Your task to perform on an android device: toggle notifications settings in the gmail app Image 0: 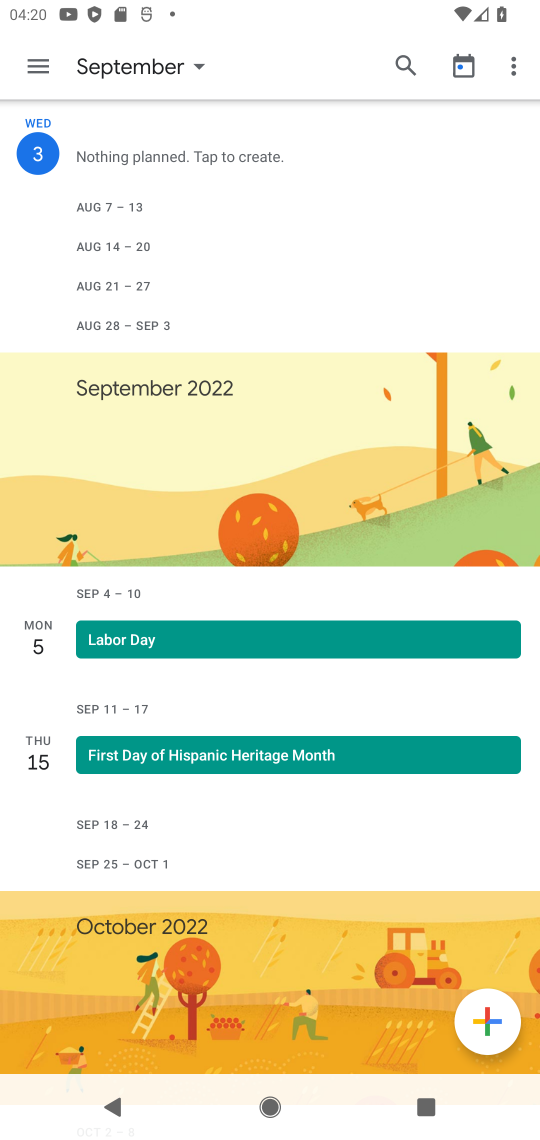
Step 0: press home button
Your task to perform on an android device: toggle notifications settings in the gmail app Image 1: 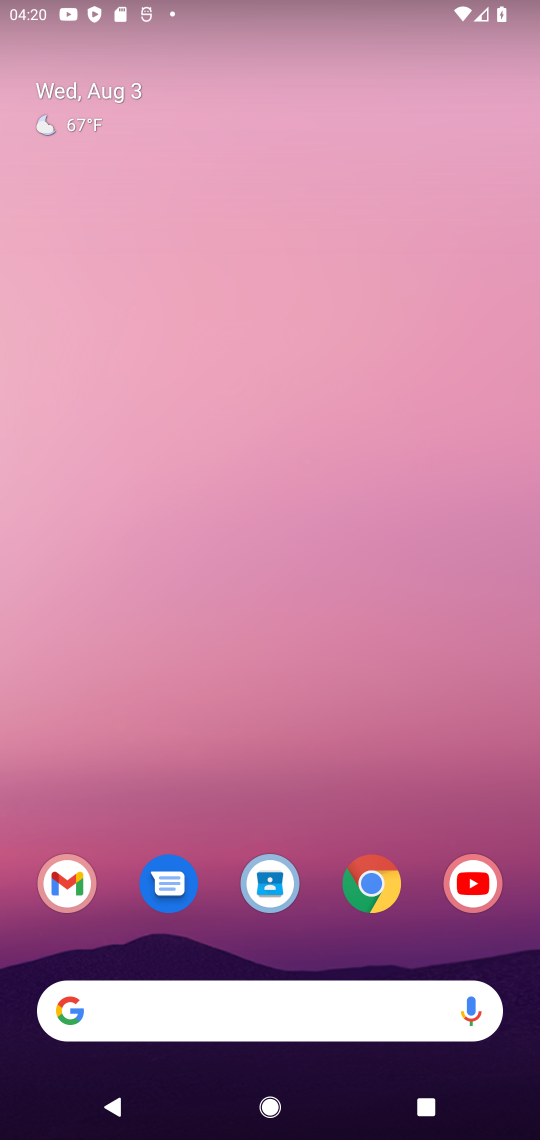
Step 1: drag from (302, 943) to (384, 87)
Your task to perform on an android device: toggle notifications settings in the gmail app Image 2: 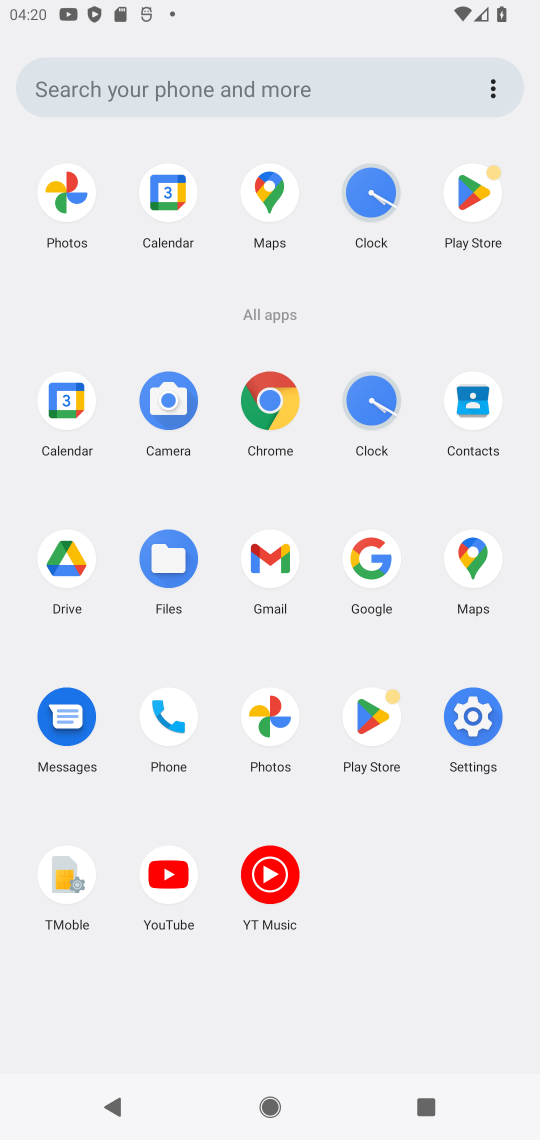
Step 2: click (288, 571)
Your task to perform on an android device: toggle notifications settings in the gmail app Image 3: 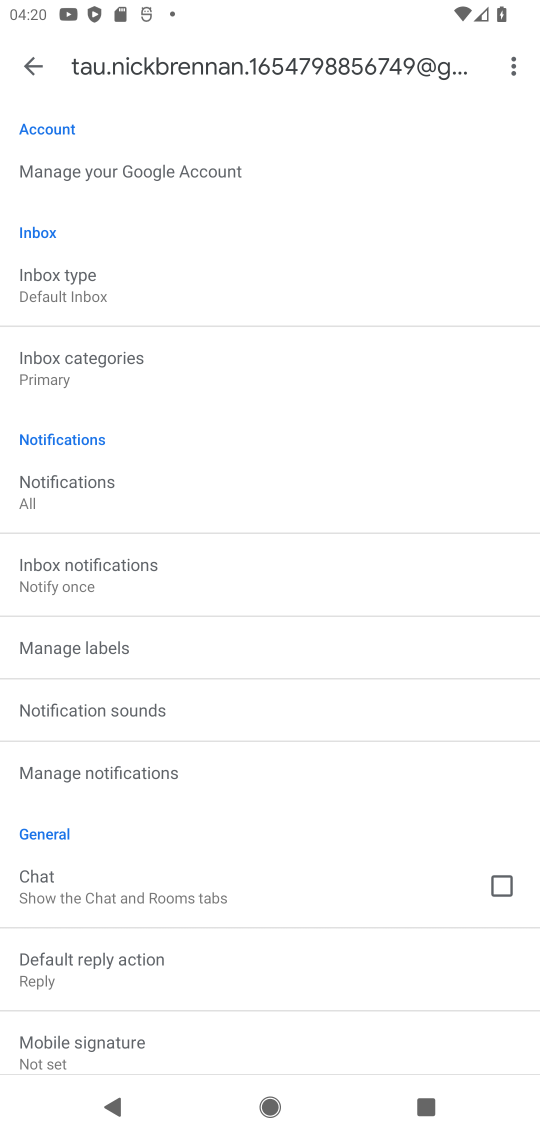
Step 3: click (31, 62)
Your task to perform on an android device: toggle notifications settings in the gmail app Image 4: 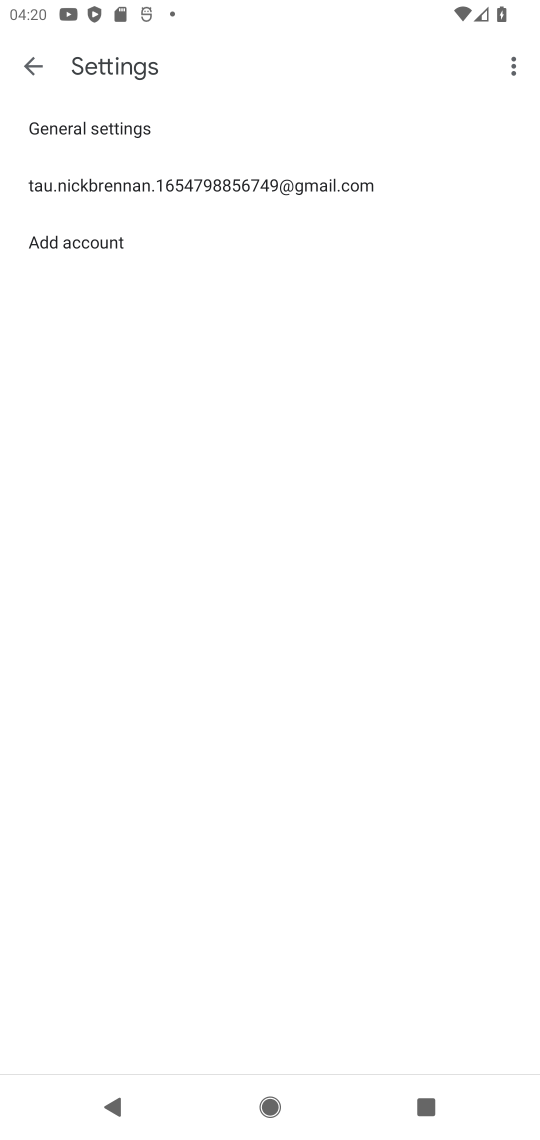
Step 4: click (141, 119)
Your task to perform on an android device: toggle notifications settings in the gmail app Image 5: 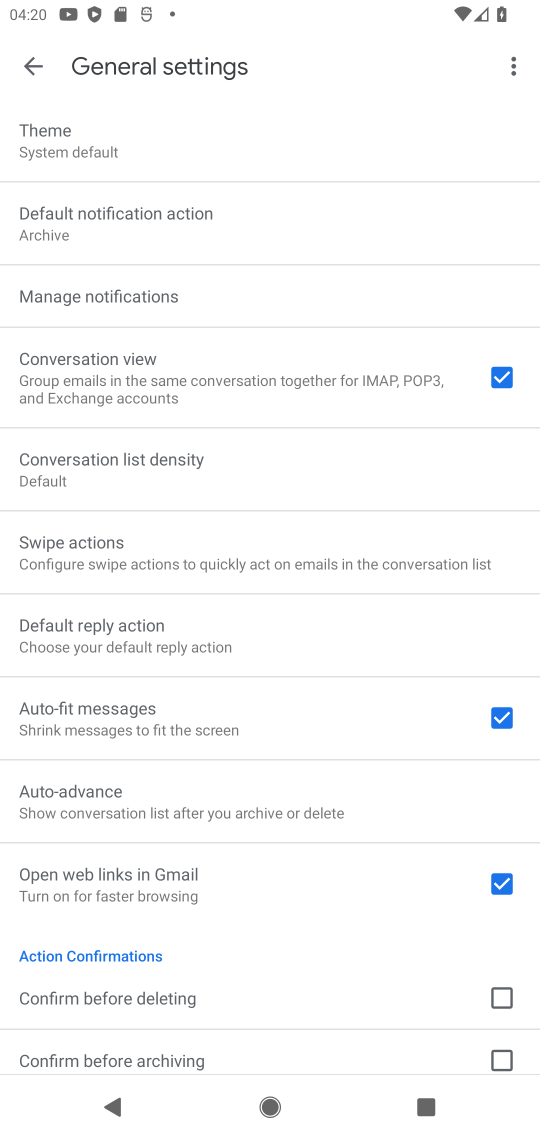
Step 5: click (167, 297)
Your task to perform on an android device: toggle notifications settings in the gmail app Image 6: 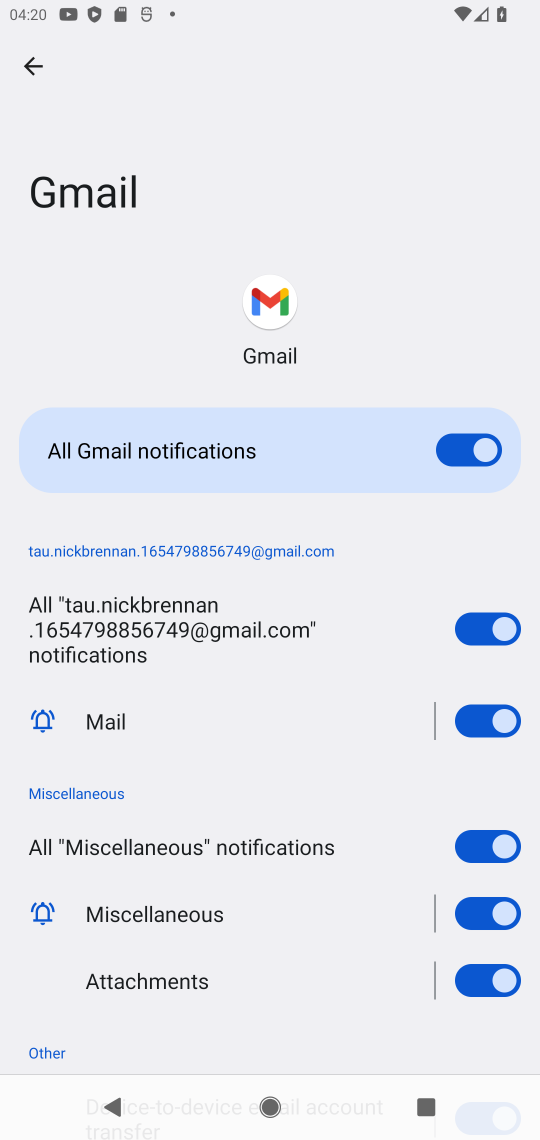
Step 6: click (384, 462)
Your task to perform on an android device: toggle notifications settings in the gmail app Image 7: 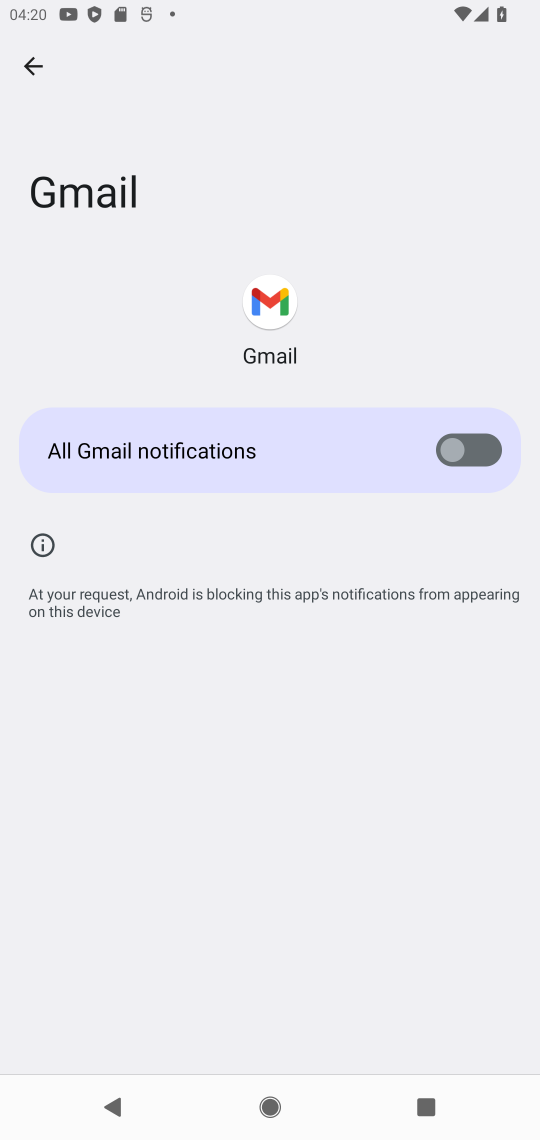
Step 7: task complete